Your task to perform on an android device: Go to Yahoo.com Image 0: 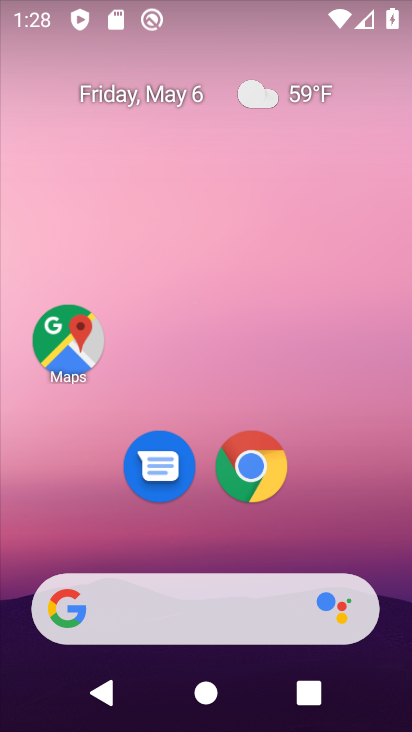
Step 0: click (246, 458)
Your task to perform on an android device: Go to Yahoo.com Image 1: 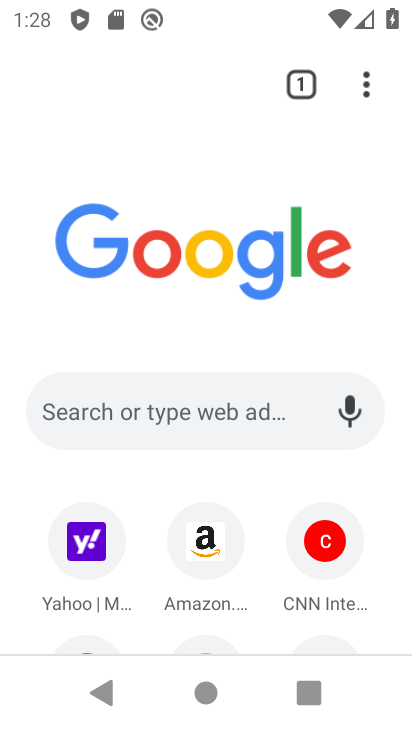
Step 1: click (82, 541)
Your task to perform on an android device: Go to Yahoo.com Image 2: 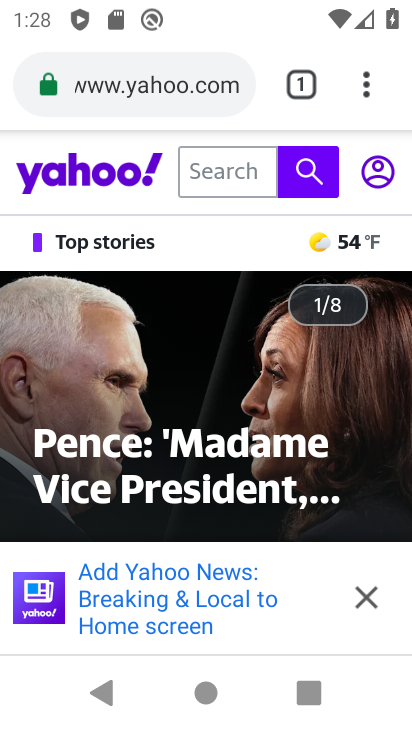
Step 2: task complete